Your task to perform on an android device: Turn on the flashlight Image 0: 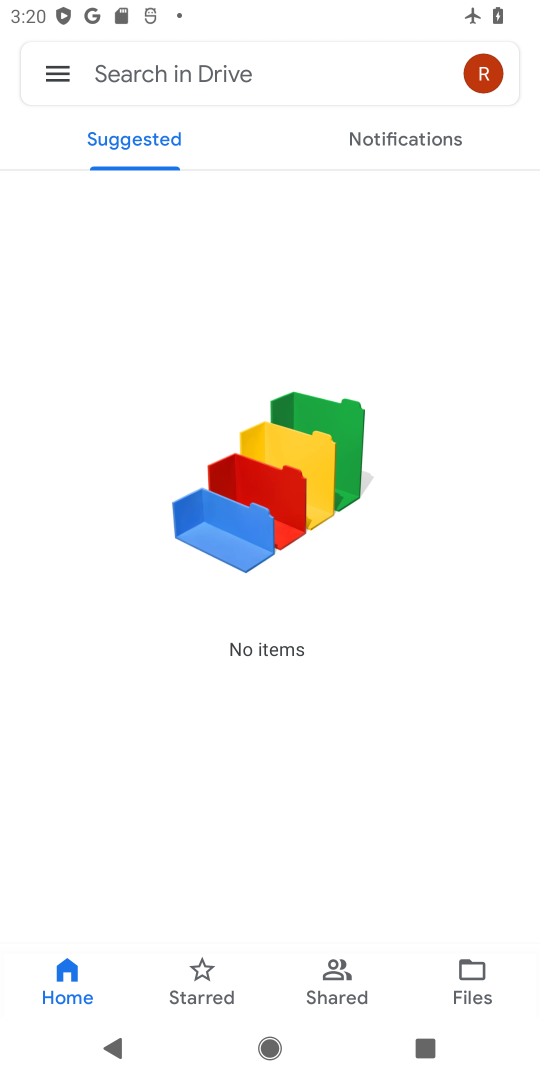
Step 0: press home button
Your task to perform on an android device: Turn on the flashlight Image 1: 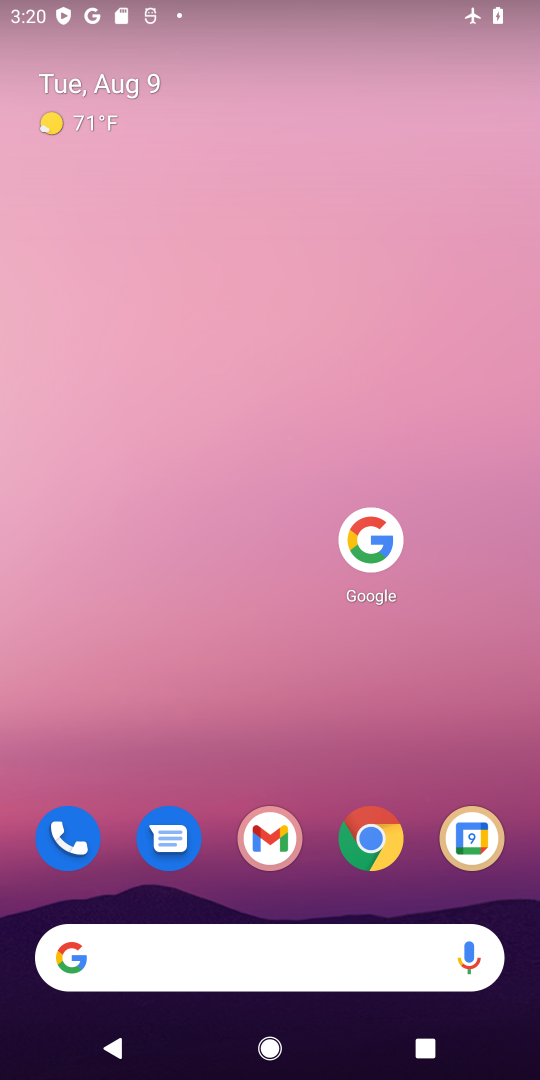
Step 1: drag from (378, 747) to (378, 81)
Your task to perform on an android device: Turn on the flashlight Image 2: 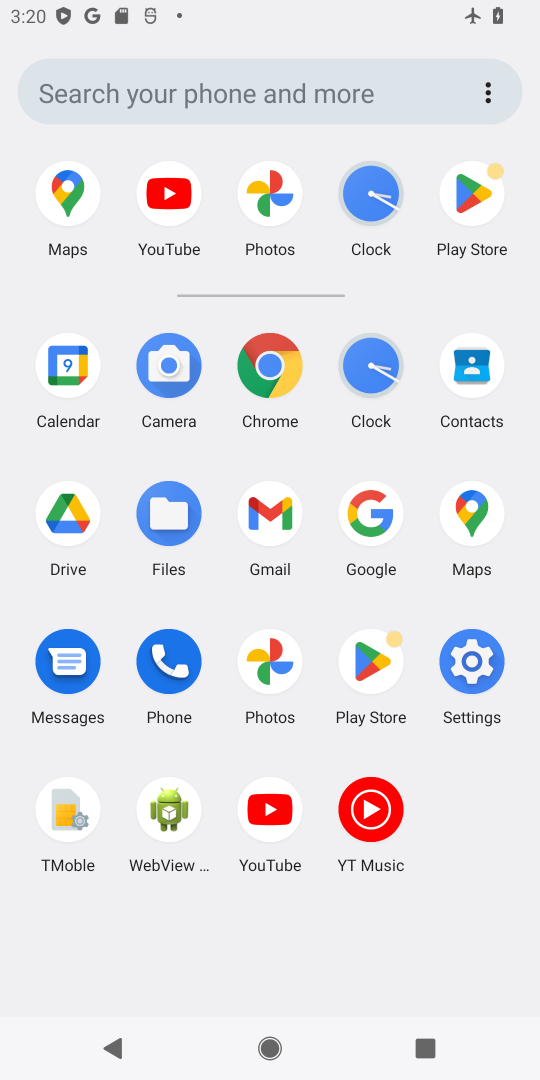
Step 2: click (485, 663)
Your task to perform on an android device: Turn on the flashlight Image 3: 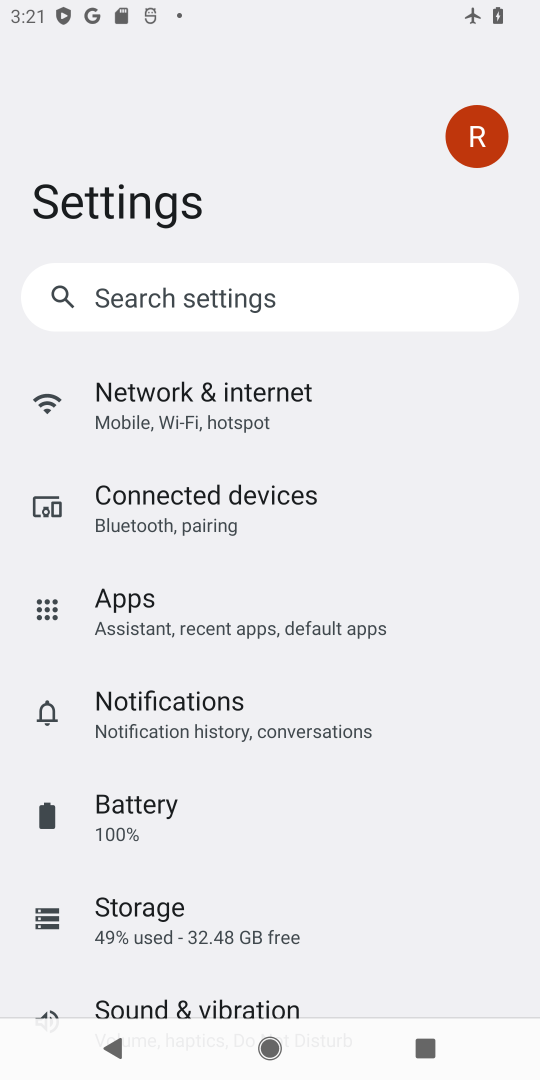
Step 3: drag from (361, 880) to (417, 530)
Your task to perform on an android device: Turn on the flashlight Image 4: 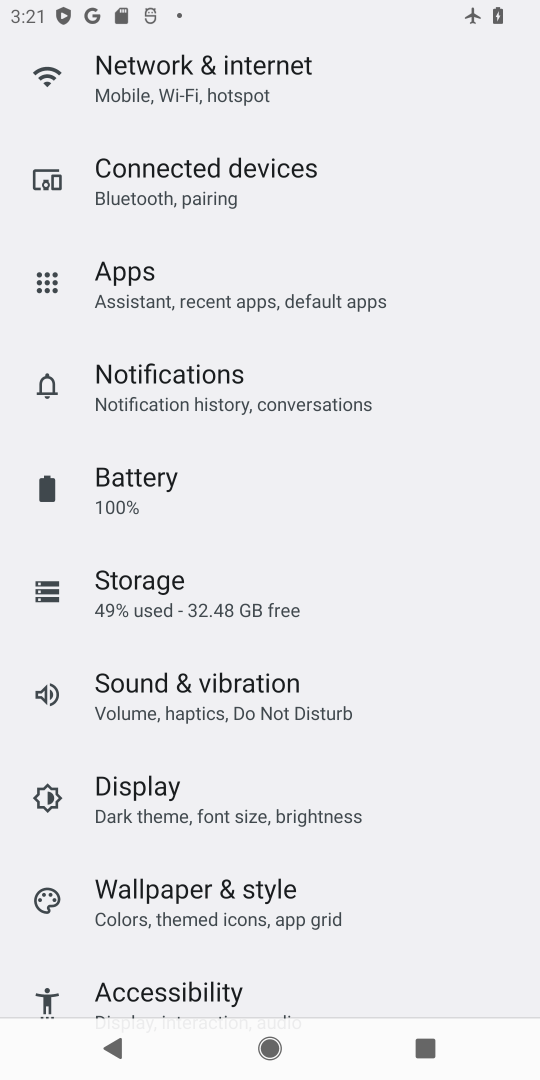
Step 4: click (181, 494)
Your task to perform on an android device: Turn on the flashlight Image 5: 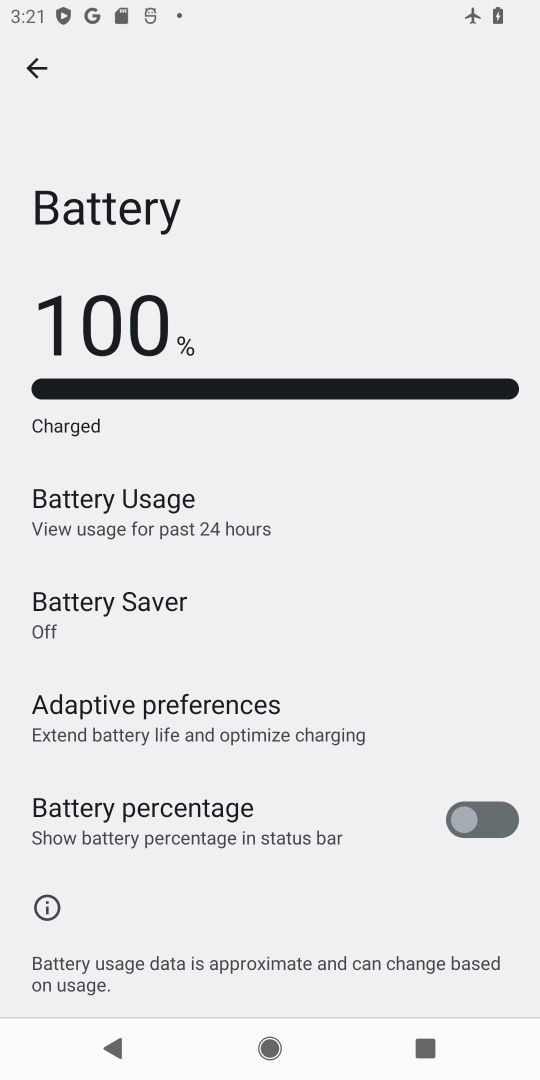
Step 5: click (52, 59)
Your task to perform on an android device: Turn on the flashlight Image 6: 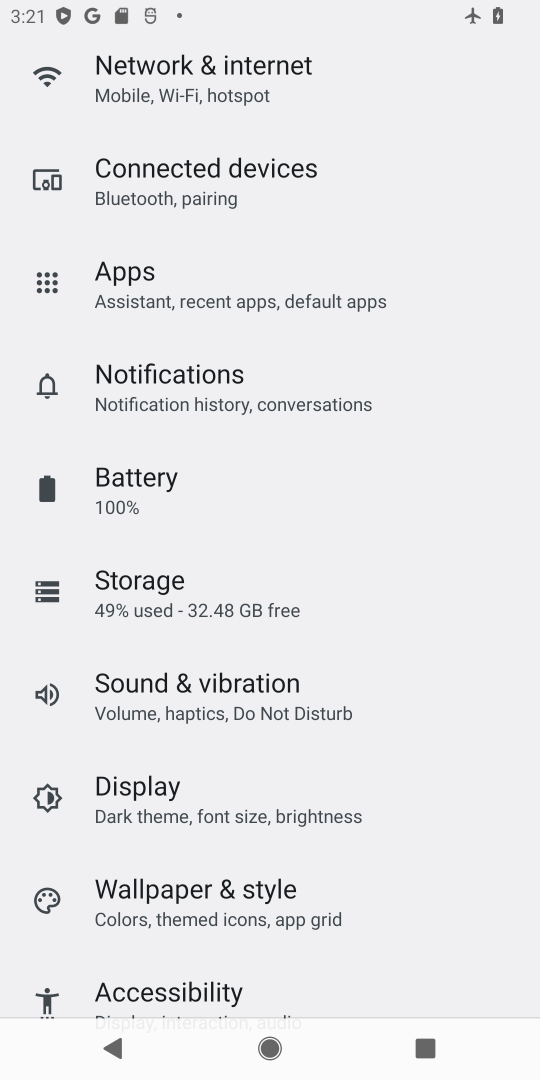
Step 6: click (252, 806)
Your task to perform on an android device: Turn on the flashlight Image 7: 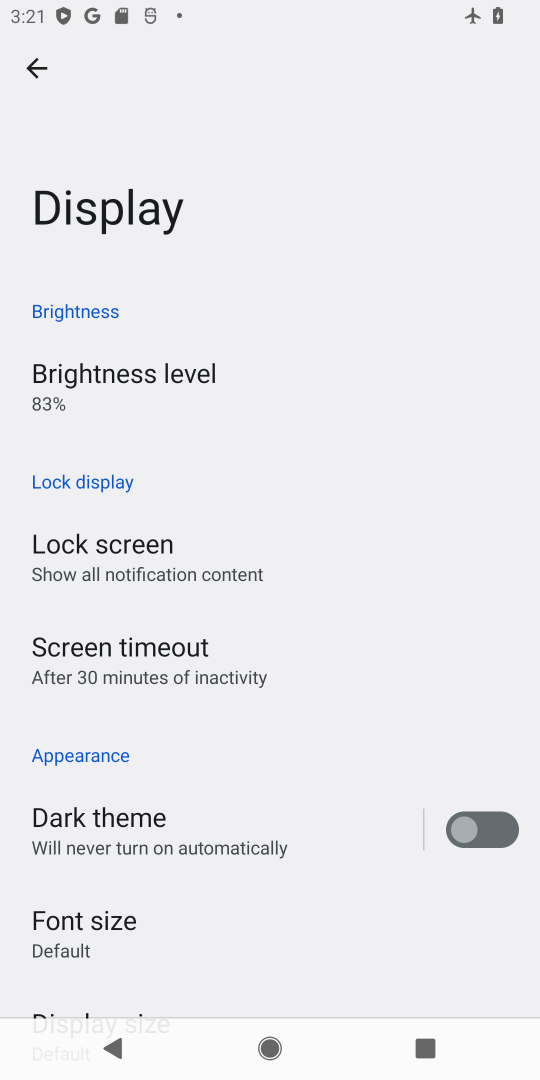
Step 7: click (149, 390)
Your task to perform on an android device: Turn on the flashlight Image 8: 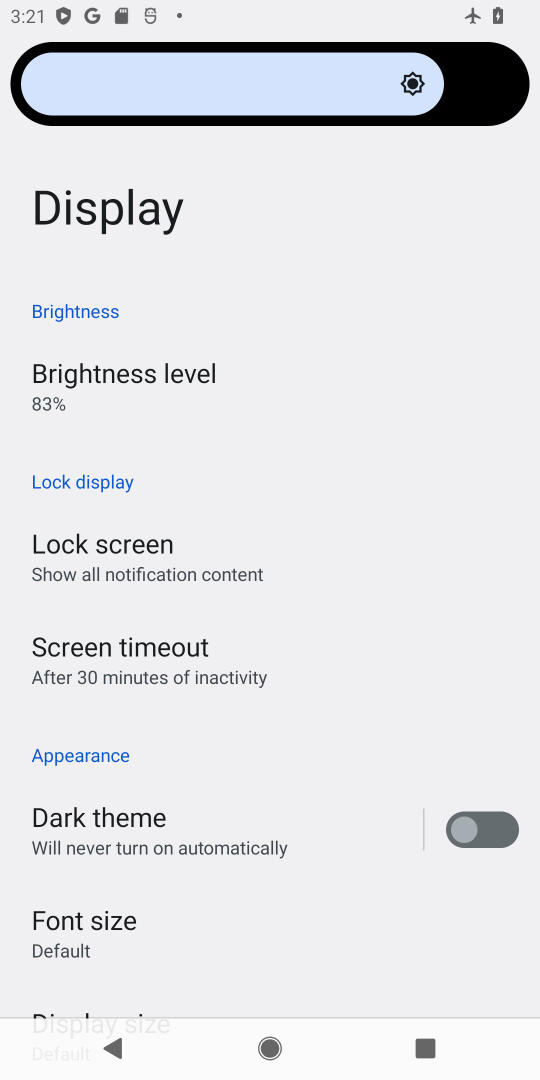
Step 8: task complete